Your task to perform on an android device: Go to Amazon Image 0: 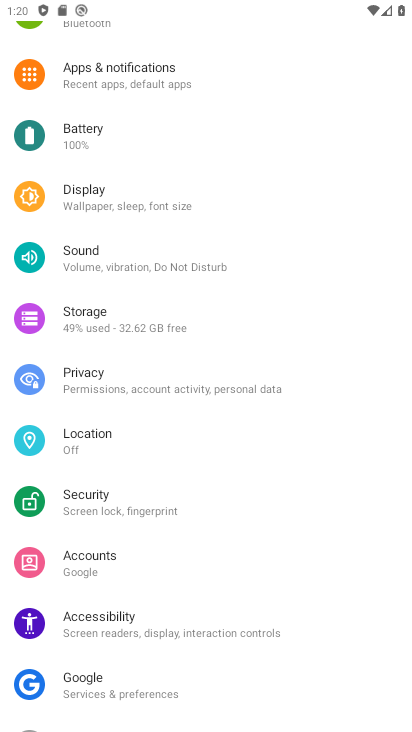
Step 0: press home button
Your task to perform on an android device: Go to Amazon Image 1: 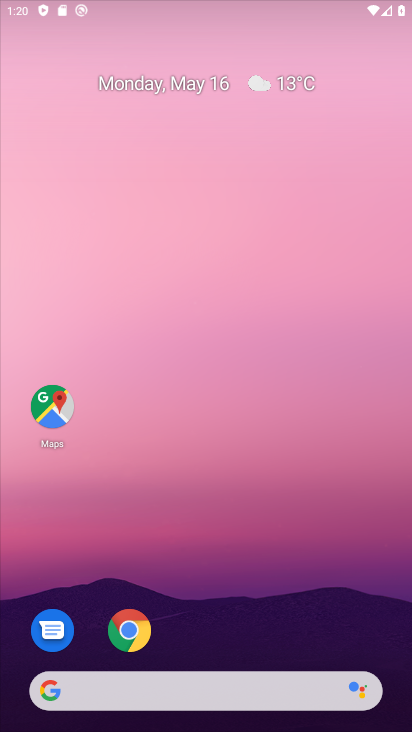
Step 1: click (304, 393)
Your task to perform on an android device: Go to Amazon Image 2: 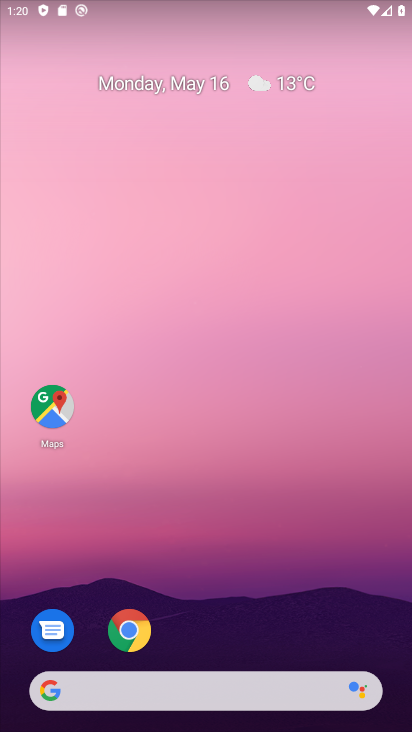
Step 2: drag from (251, 597) to (261, 133)
Your task to perform on an android device: Go to Amazon Image 3: 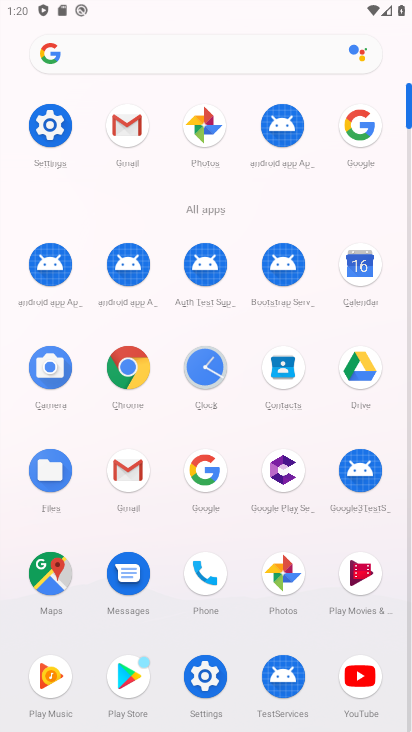
Step 3: click (158, 383)
Your task to perform on an android device: Go to Amazon Image 4: 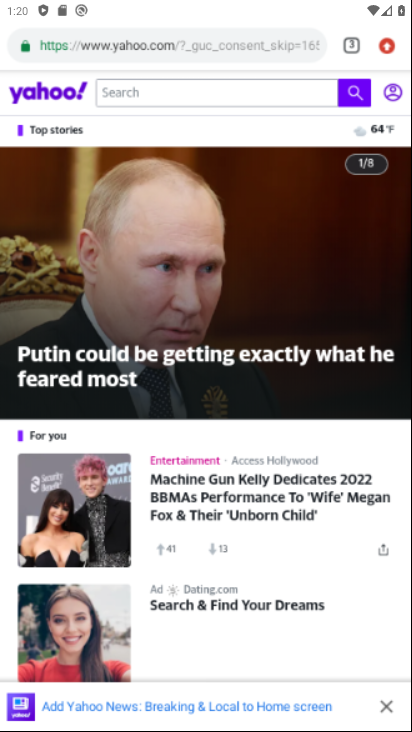
Step 4: click (141, 367)
Your task to perform on an android device: Go to Amazon Image 5: 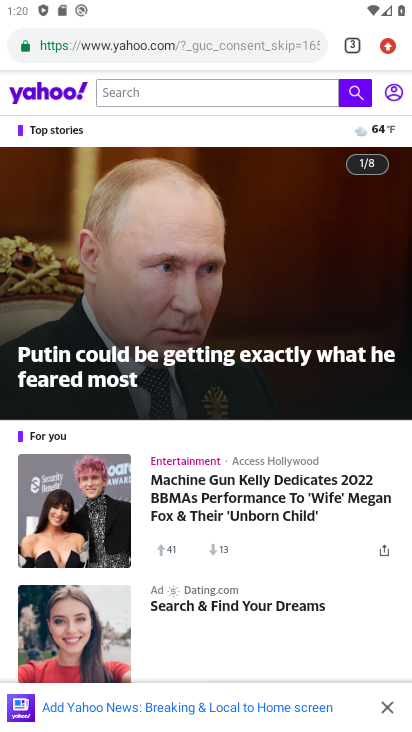
Step 5: click (362, 39)
Your task to perform on an android device: Go to Amazon Image 6: 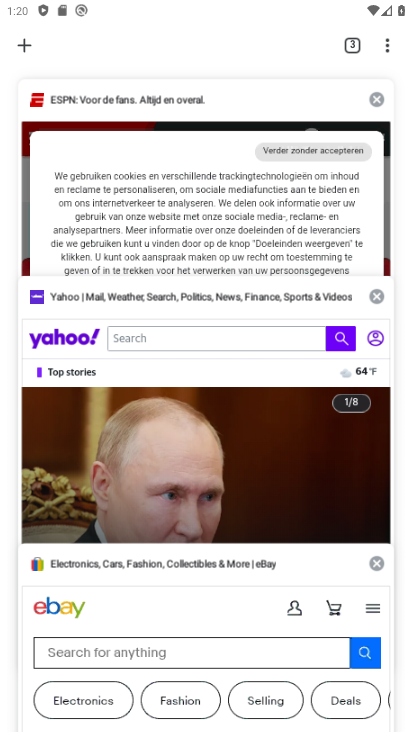
Step 6: click (19, 33)
Your task to perform on an android device: Go to Amazon Image 7: 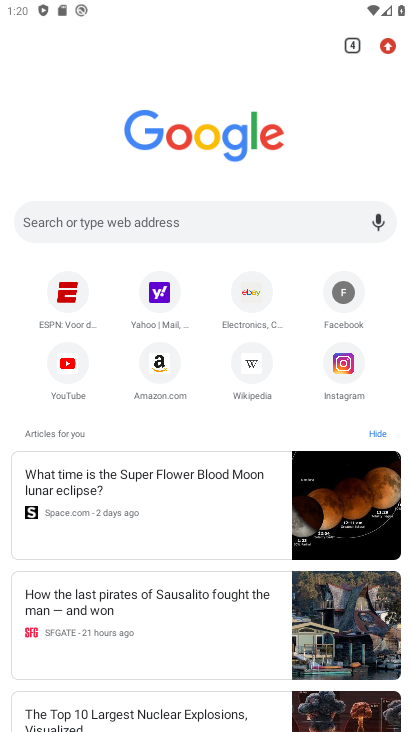
Step 7: click (149, 355)
Your task to perform on an android device: Go to Amazon Image 8: 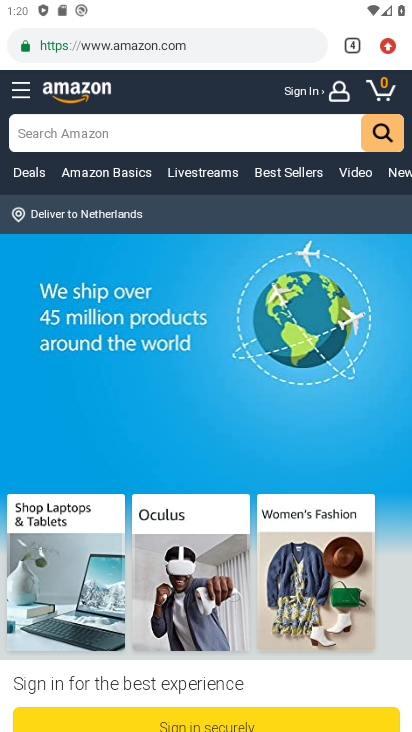
Step 8: task complete